Your task to perform on an android device: Clear the shopping cart on costco. Add "logitech g933" to the cart on costco Image 0: 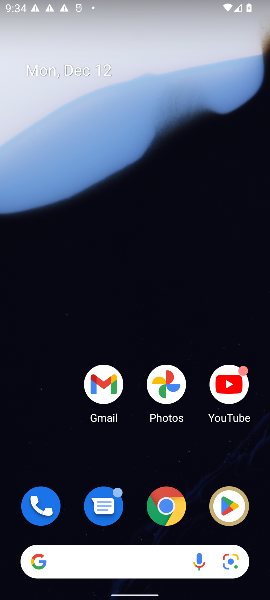
Step 0: click (71, 566)
Your task to perform on an android device: Clear the shopping cart on costco. Add "logitech g933" to the cart on costco Image 1: 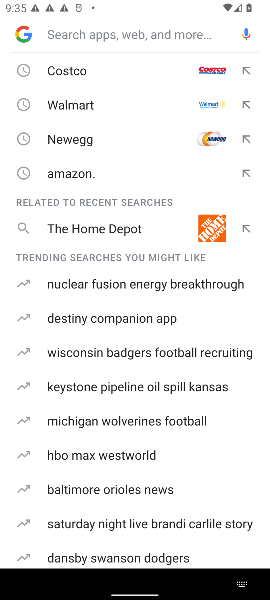
Step 1: click (85, 64)
Your task to perform on an android device: Clear the shopping cart on costco. Add "logitech g933" to the cart on costco Image 2: 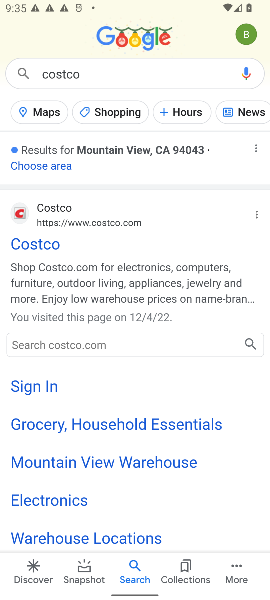
Step 2: click (21, 228)
Your task to perform on an android device: Clear the shopping cart on costco. Add "logitech g933" to the cart on costco Image 3: 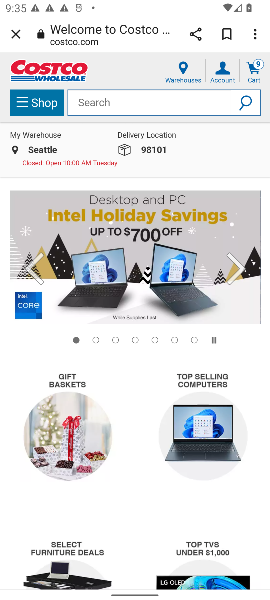
Step 3: click (122, 100)
Your task to perform on an android device: Clear the shopping cart on costco. Add "logitech g933" to the cart on costco Image 4: 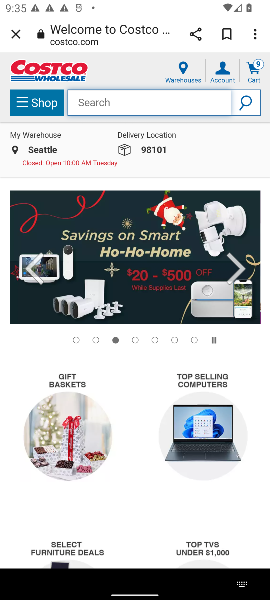
Step 4: type "logitech g933"
Your task to perform on an android device: Clear the shopping cart on costco. Add "logitech g933" to the cart on costco Image 5: 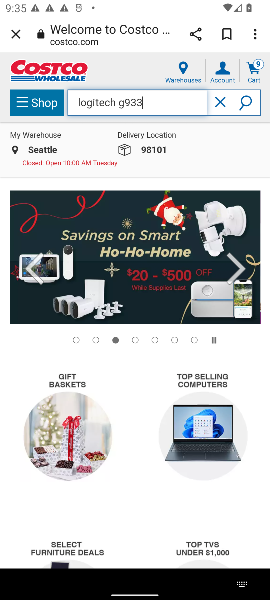
Step 5: click (252, 114)
Your task to perform on an android device: Clear the shopping cart on costco. Add "logitech g933" to the cart on costco Image 6: 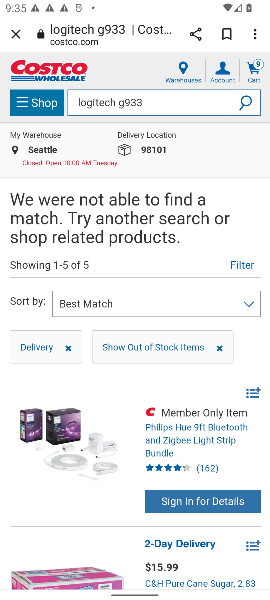
Step 6: task complete